Your task to perform on an android device: turn off smart reply in the gmail app Image 0: 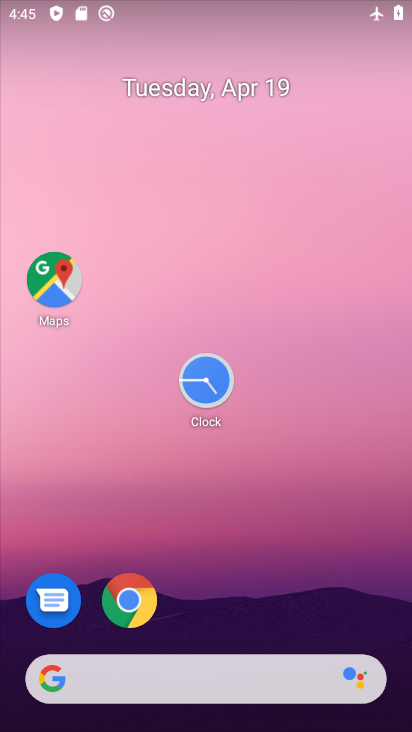
Step 0: drag from (235, 272) to (204, 60)
Your task to perform on an android device: turn off smart reply in the gmail app Image 1: 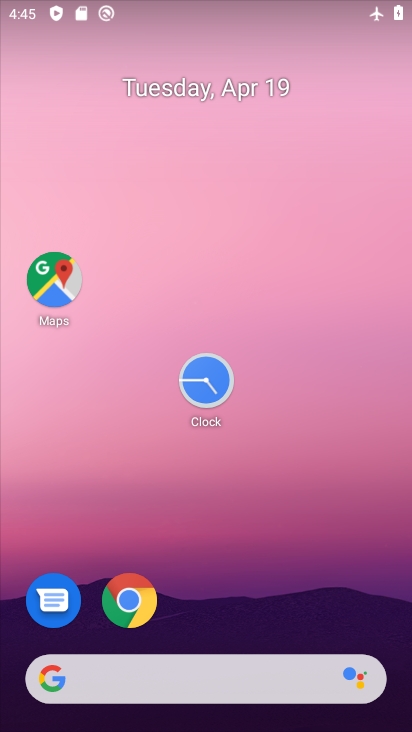
Step 1: drag from (217, 461) to (130, 165)
Your task to perform on an android device: turn off smart reply in the gmail app Image 2: 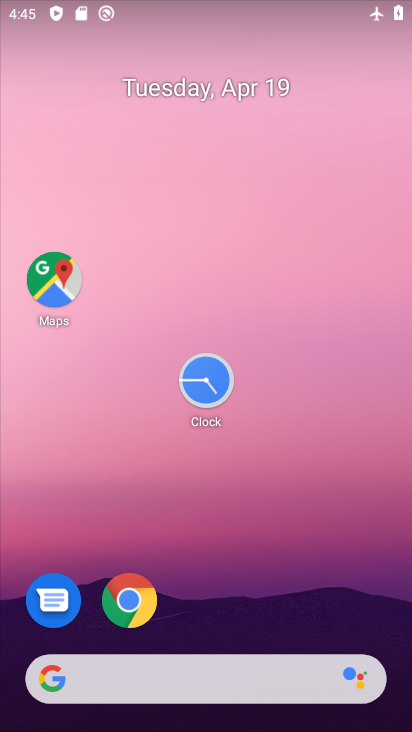
Step 2: drag from (291, 684) to (159, 189)
Your task to perform on an android device: turn off smart reply in the gmail app Image 3: 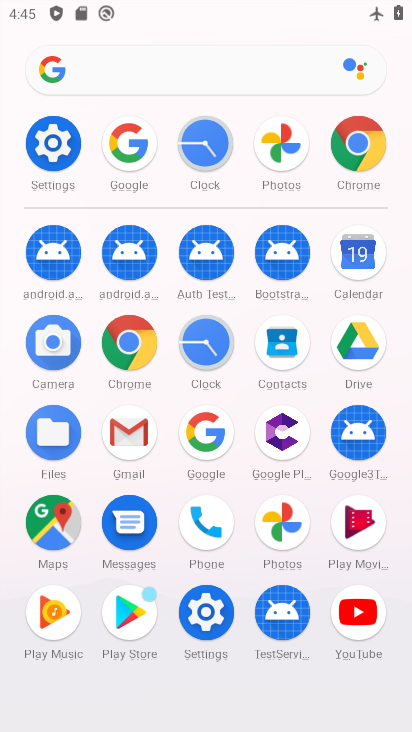
Step 3: drag from (221, 412) to (196, 265)
Your task to perform on an android device: turn off smart reply in the gmail app Image 4: 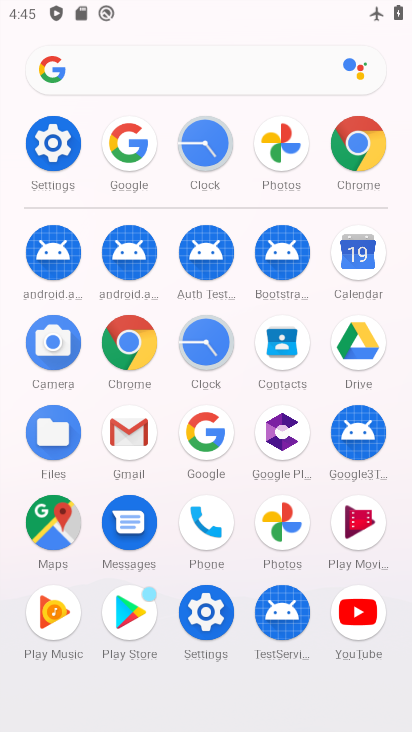
Step 4: click (134, 434)
Your task to perform on an android device: turn off smart reply in the gmail app Image 5: 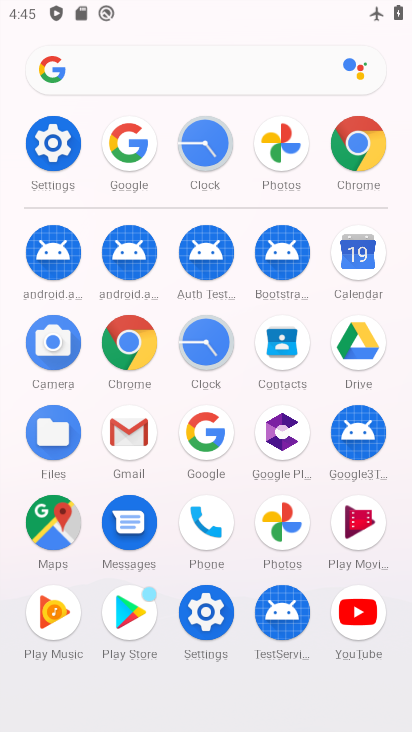
Step 5: click (126, 430)
Your task to perform on an android device: turn off smart reply in the gmail app Image 6: 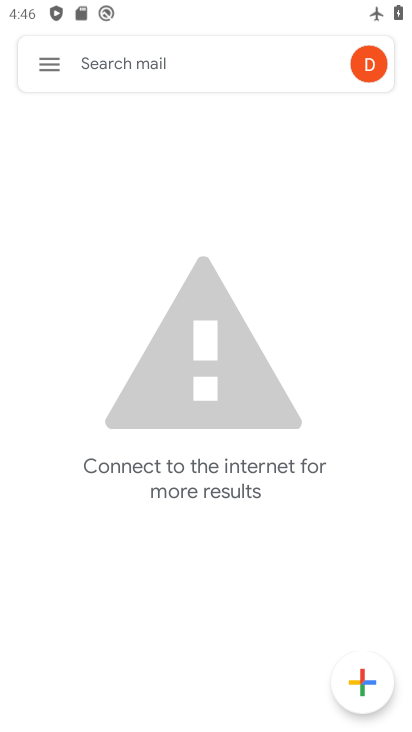
Step 6: click (55, 55)
Your task to perform on an android device: turn off smart reply in the gmail app Image 7: 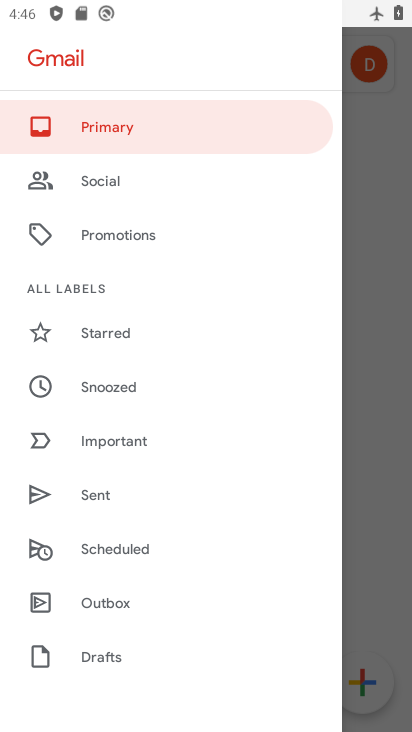
Step 7: drag from (192, 537) to (257, 194)
Your task to perform on an android device: turn off smart reply in the gmail app Image 8: 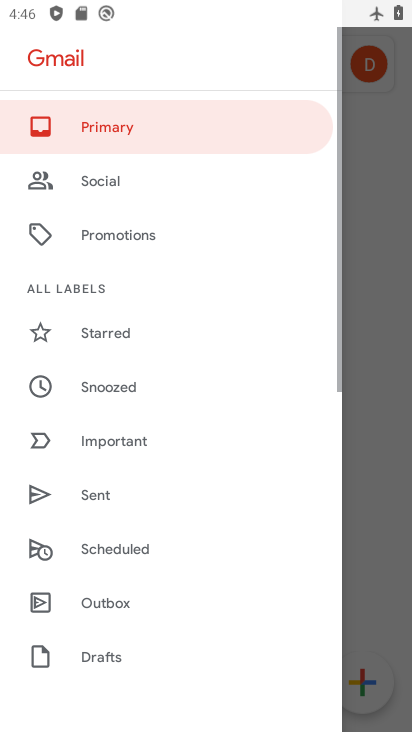
Step 8: click (257, 193)
Your task to perform on an android device: turn off smart reply in the gmail app Image 9: 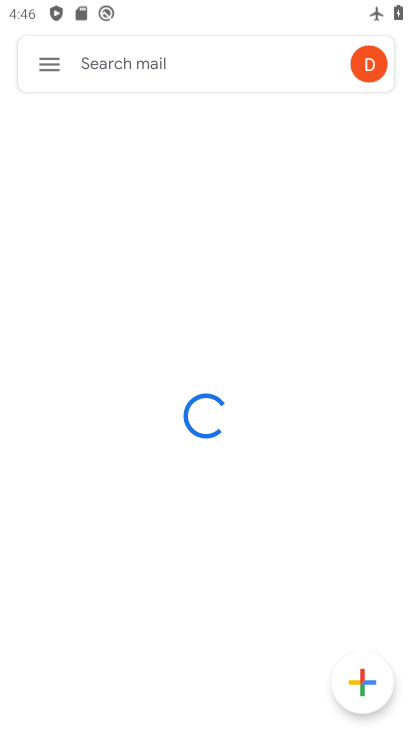
Step 9: click (41, 59)
Your task to perform on an android device: turn off smart reply in the gmail app Image 10: 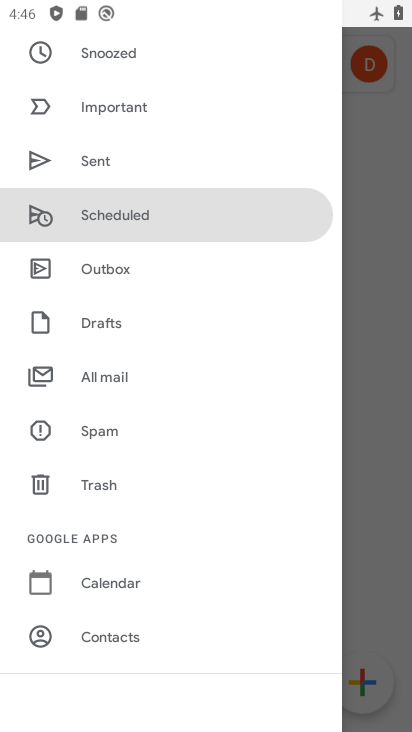
Step 10: drag from (164, 314) to (157, 225)
Your task to perform on an android device: turn off smart reply in the gmail app Image 11: 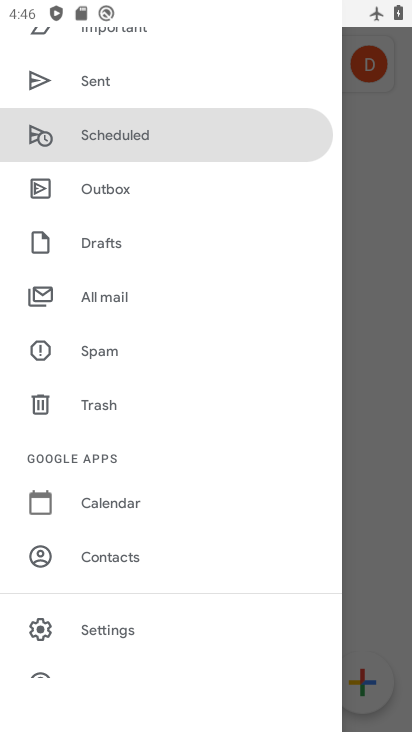
Step 11: click (89, 631)
Your task to perform on an android device: turn off smart reply in the gmail app Image 12: 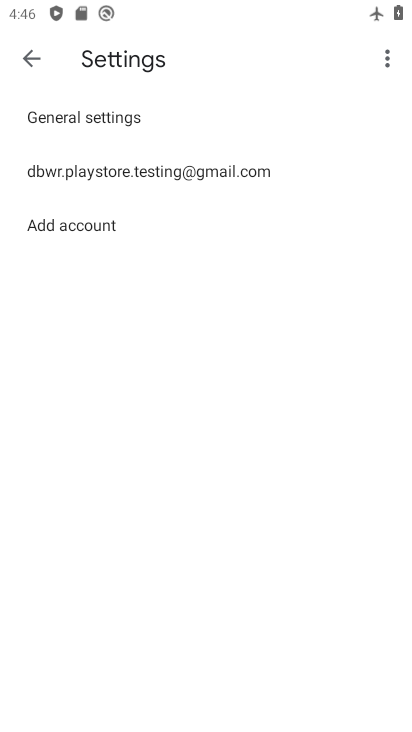
Step 12: click (104, 173)
Your task to perform on an android device: turn off smart reply in the gmail app Image 13: 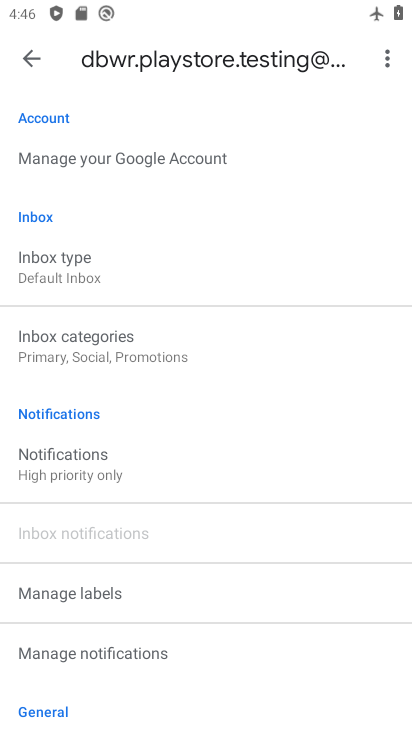
Step 13: drag from (104, 521) to (127, 205)
Your task to perform on an android device: turn off smart reply in the gmail app Image 14: 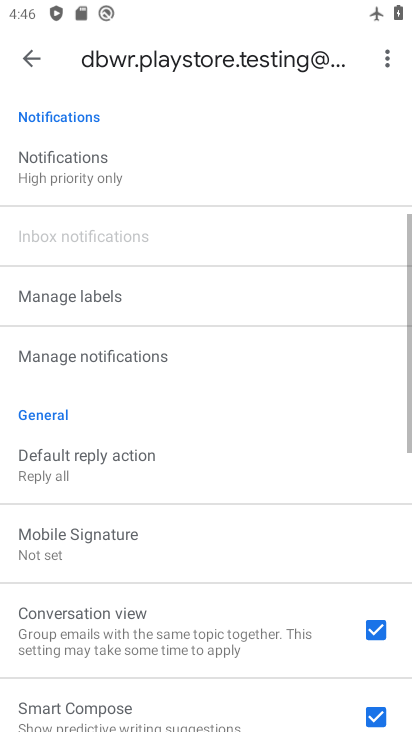
Step 14: drag from (154, 487) to (146, 137)
Your task to perform on an android device: turn off smart reply in the gmail app Image 15: 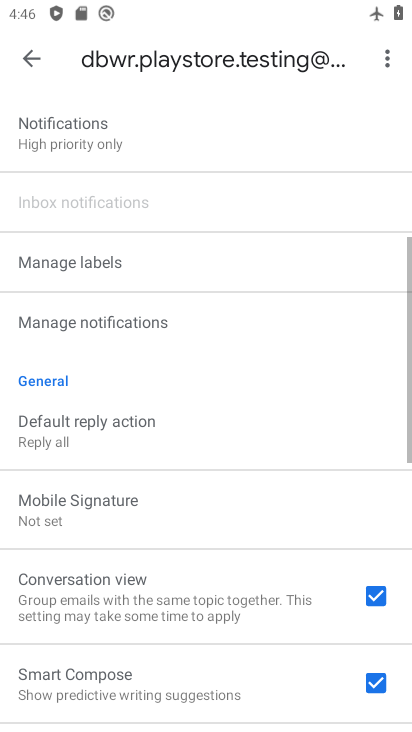
Step 15: drag from (177, 528) to (145, 113)
Your task to perform on an android device: turn off smart reply in the gmail app Image 16: 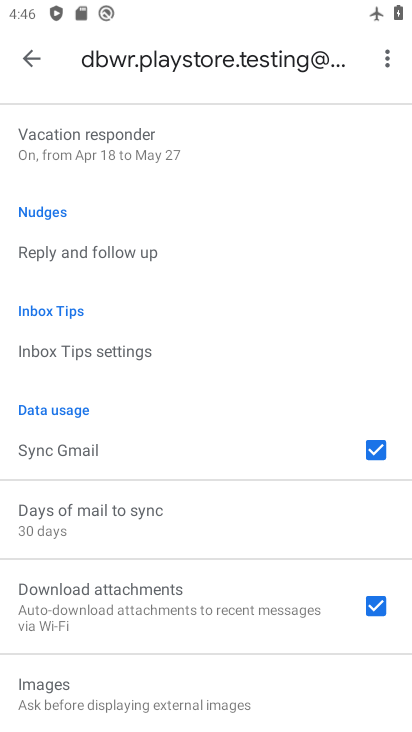
Step 16: click (152, 561)
Your task to perform on an android device: turn off smart reply in the gmail app Image 17: 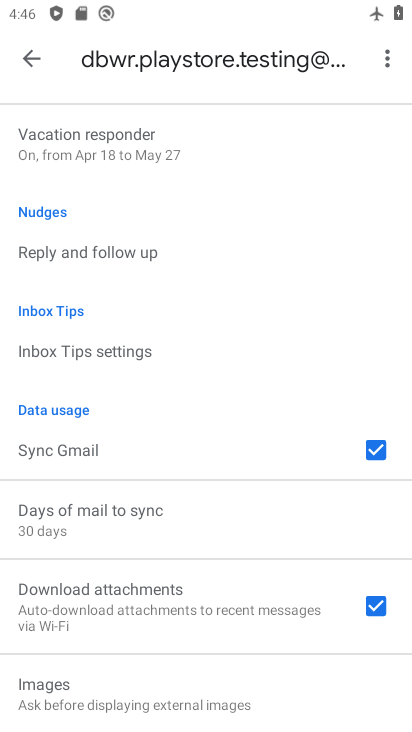
Step 17: drag from (168, 480) to (231, 539)
Your task to perform on an android device: turn off smart reply in the gmail app Image 18: 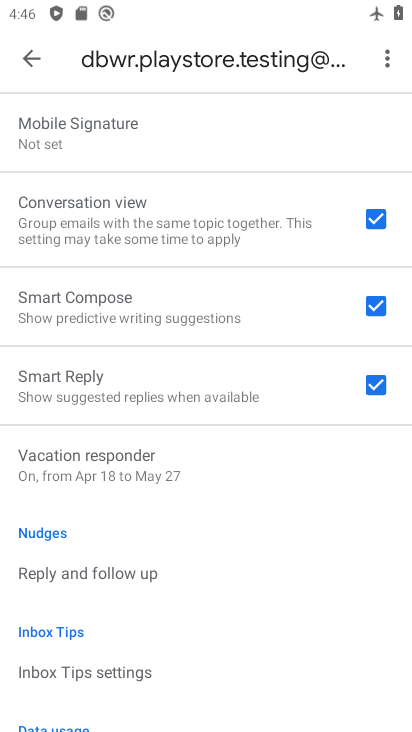
Step 18: click (376, 373)
Your task to perform on an android device: turn off smart reply in the gmail app Image 19: 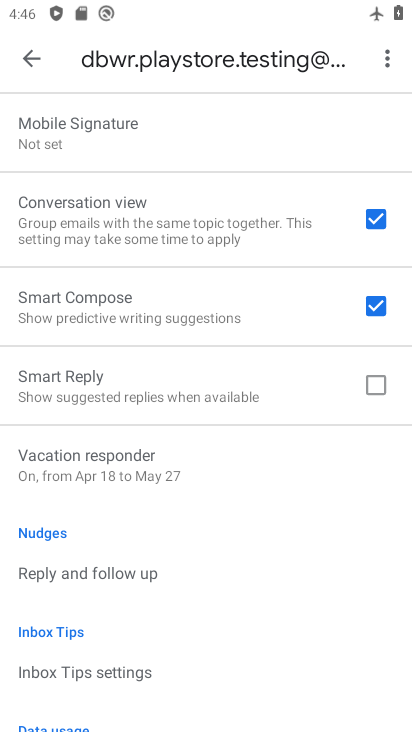
Step 19: task complete